Your task to perform on an android device: turn off sleep mode Image 0: 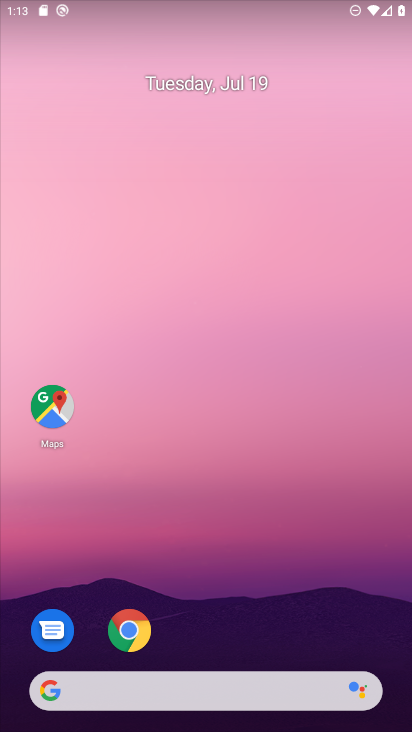
Step 0: drag from (152, 692) to (287, 28)
Your task to perform on an android device: turn off sleep mode Image 1: 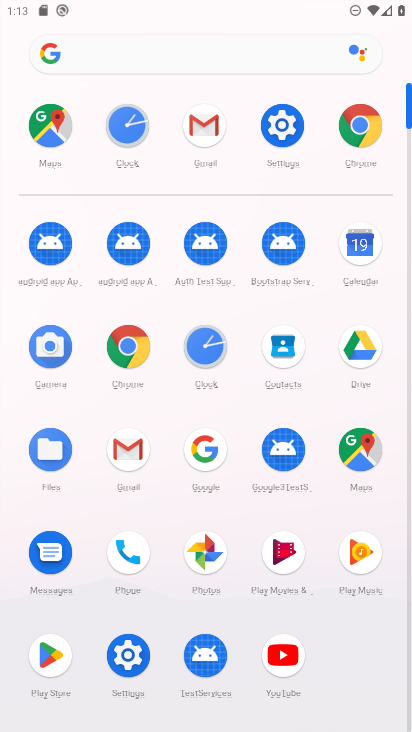
Step 1: click (284, 129)
Your task to perform on an android device: turn off sleep mode Image 2: 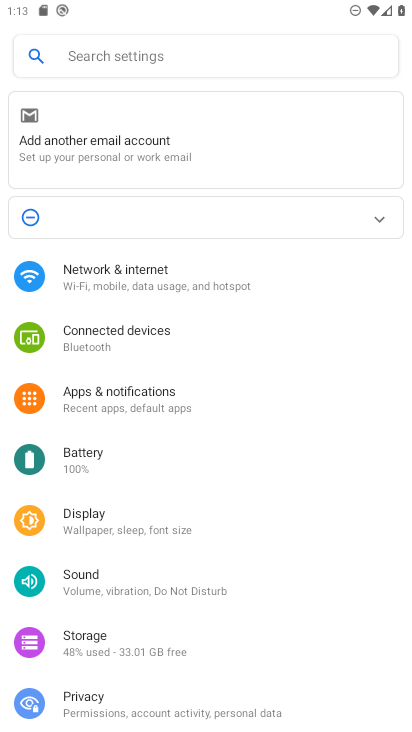
Step 2: click (98, 514)
Your task to perform on an android device: turn off sleep mode Image 3: 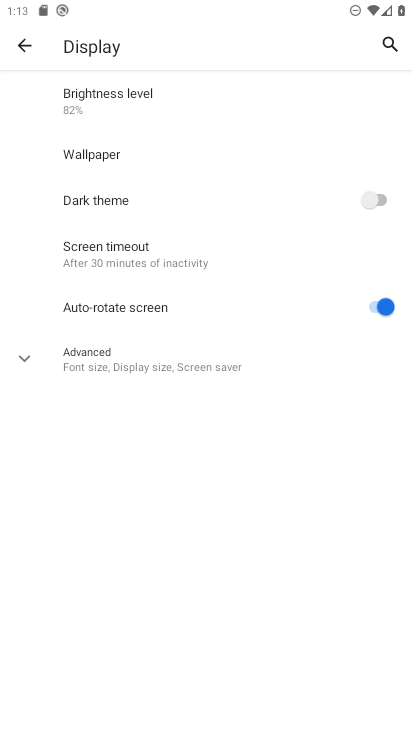
Step 3: task complete